Your task to perform on an android device: Search for vegetarian restaurants on Maps Image 0: 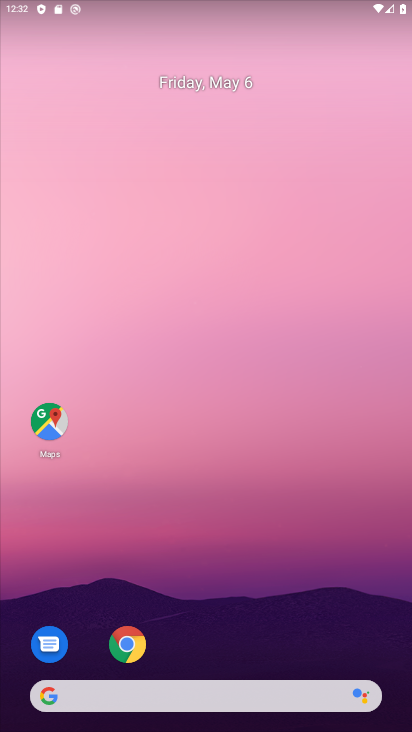
Step 0: click (52, 422)
Your task to perform on an android device: Search for vegetarian restaurants on Maps Image 1: 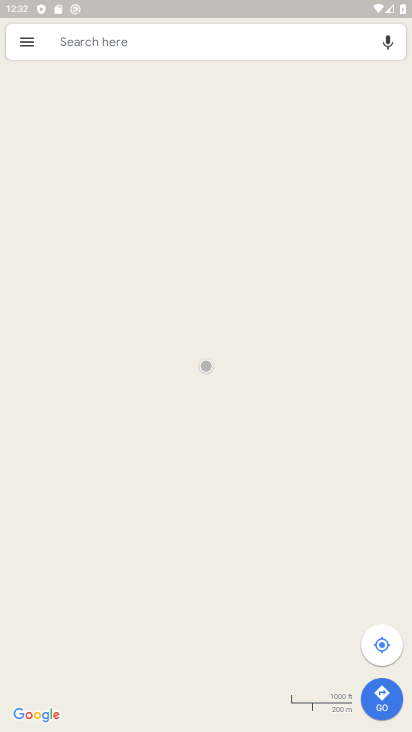
Step 1: click (158, 45)
Your task to perform on an android device: Search for vegetarian restaurants on Maps Image 2: 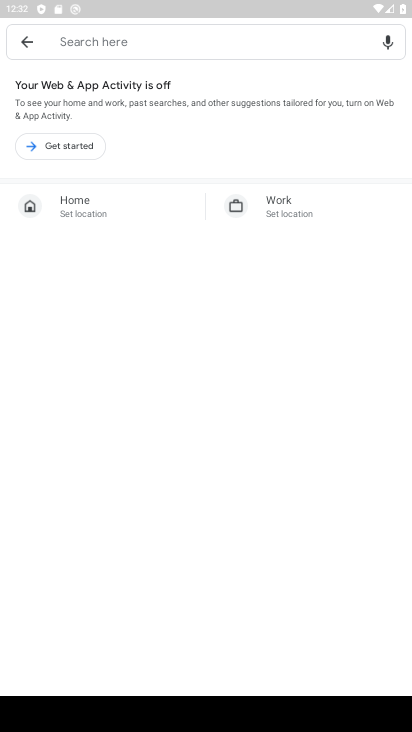
Step 2: click (164, 40)
Your task to perform on an android device: Search for vegetarian restaurants on Maps Image 3: 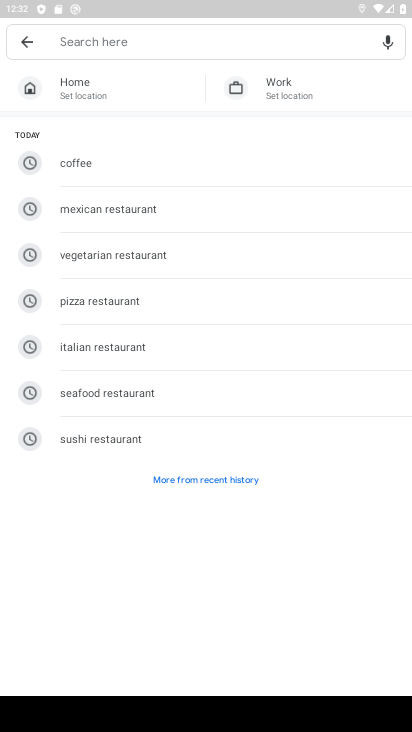
Step 3: click (142, 251)
Your task to perform on an android device: Search for vegetarian restaurants on Maps Image 4: 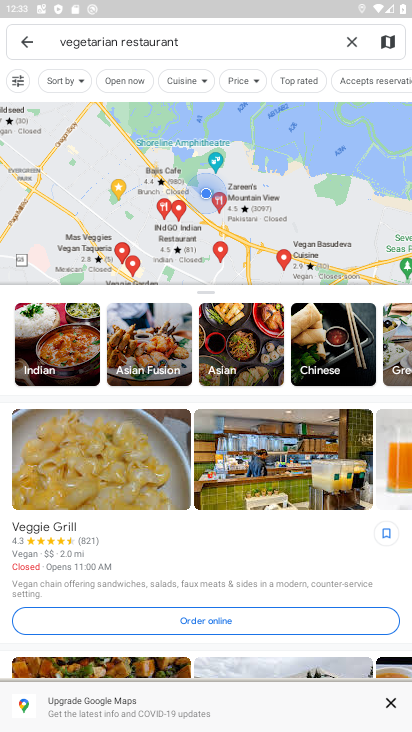
Step 4: task complete